Your task to perform on an android device: move a message to another label in the gmail app Image 0: 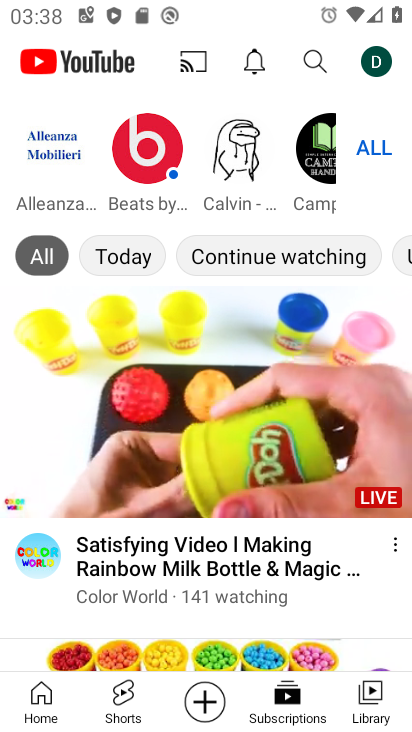
Step 0: press home button
Your task to perform on an android device: move a message to another label in the gmail app Image 1: 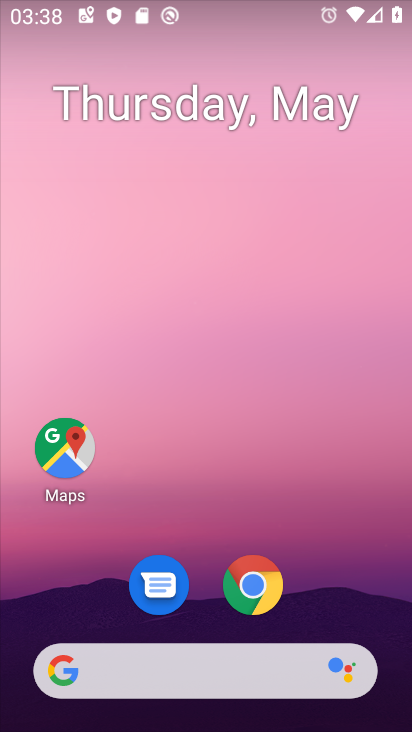
Step 1: drag from (214, 490) to (240, 57)
Your task to perform on an android device: move a message to another label in the gmail app Image 2: 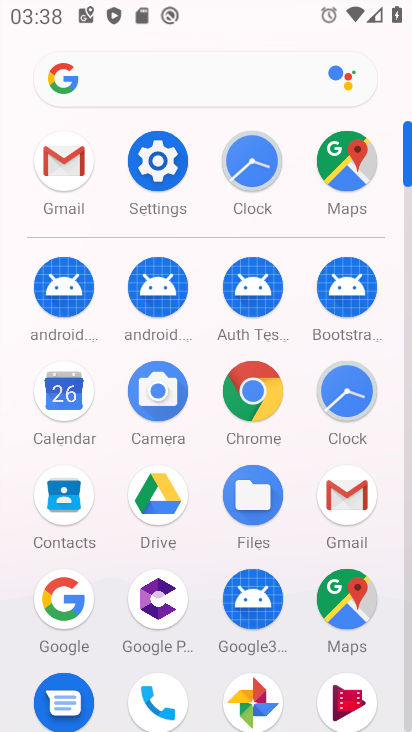
Step 2: click (64, 163)
Your task to perform on an android device: move a message to another label in the gmail app Image 3: 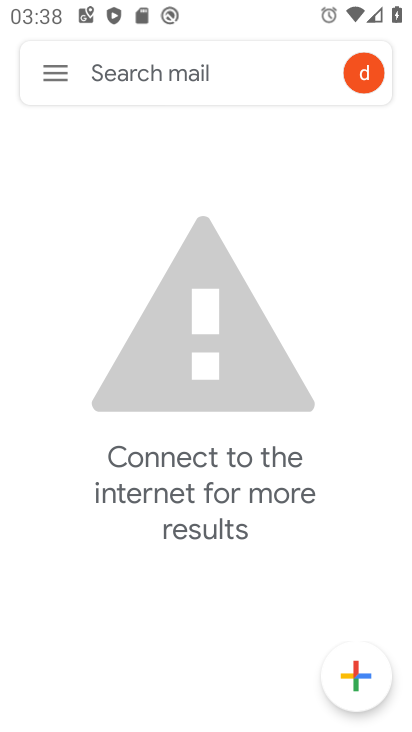
Step 3: click (47, 60)
Your task to perform on an android device: move a message to another label in the gmail app Image 4: 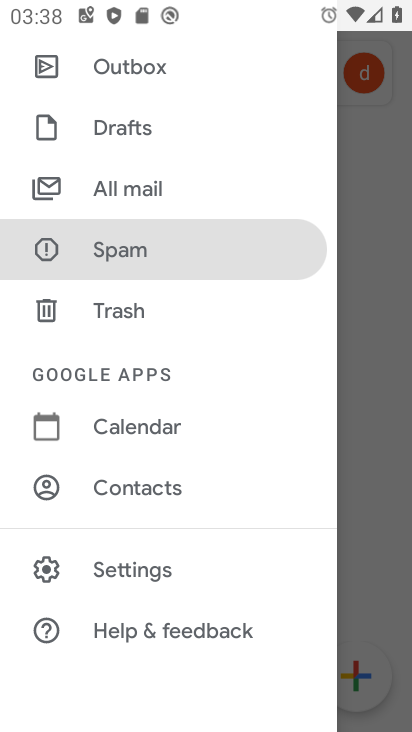
Step 4: click (133, 185)
Your task to perform on an android device: move a message to another label in the gmail app Image 5: 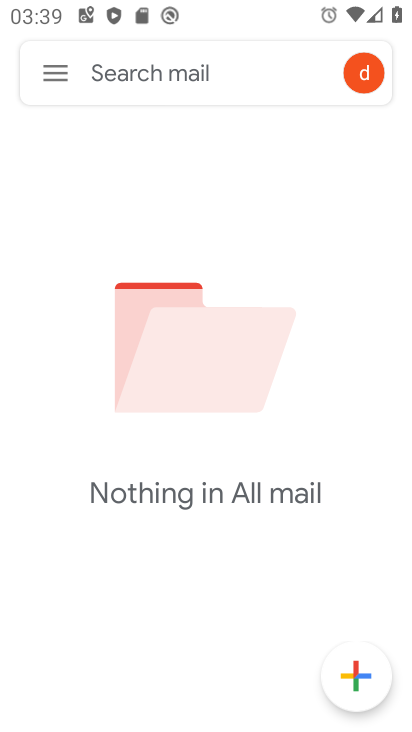
Step 5: task complete